Your task to perform on an android device: empty trash in the gmail app Image 0: 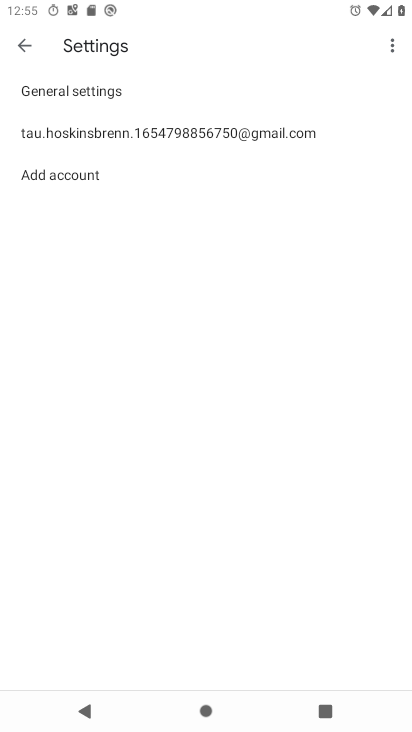
Step 0: press home button
Your task to perform on an android device: empty trash in the gmail app Image 1: 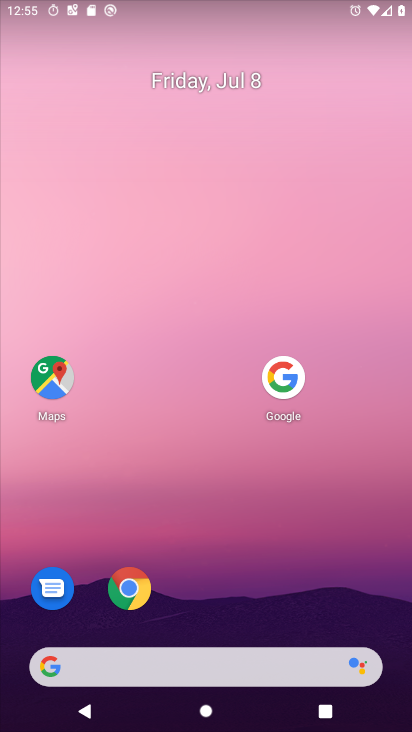
Step 1: drag from (143, 660) to (293, 143)
Your task to perform on an android device: empty trash in the gmail app Image 2: 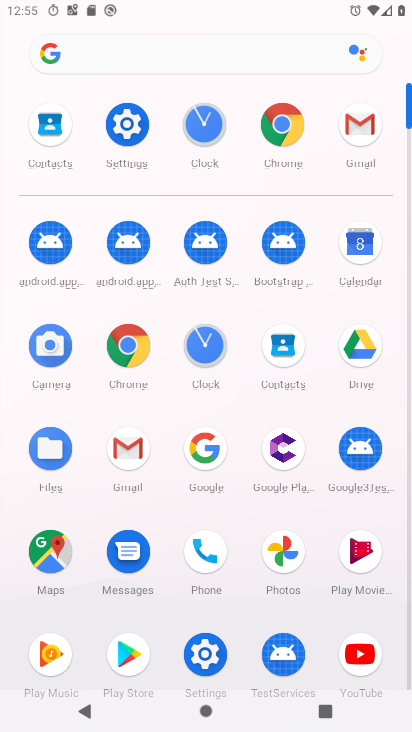
Step 2: click (361, 122)
Your task to perform on an android device: empty trash in the gmail app Image 3: 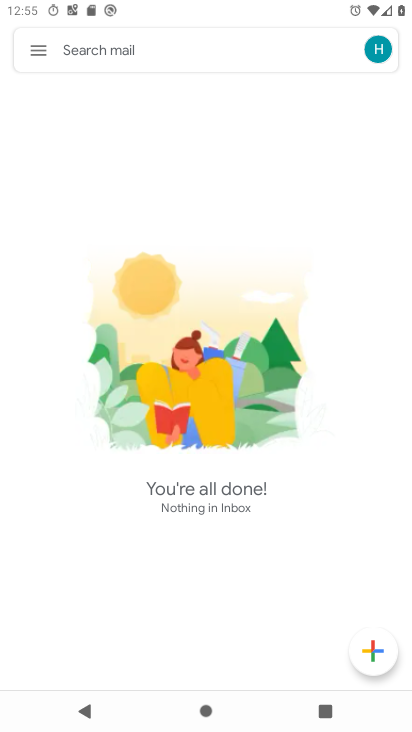
Step 3: click (37, 48)
Your task to perform on an android device: empty trash in the gmail app Image 4: 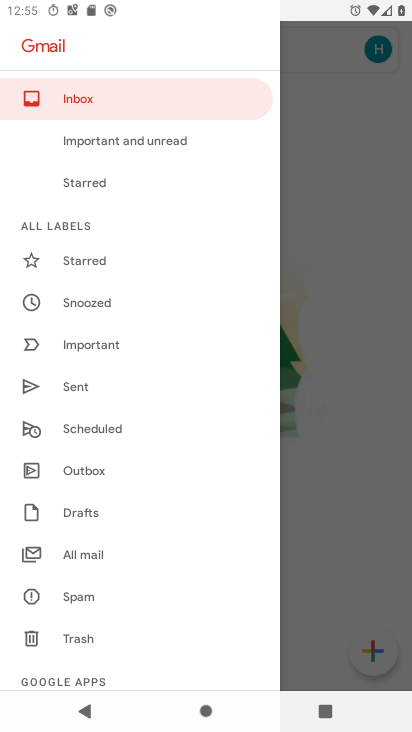
Step 4: click (98, 639)
Your task to perform on an android device: empty trash in the gmail app Image 5: 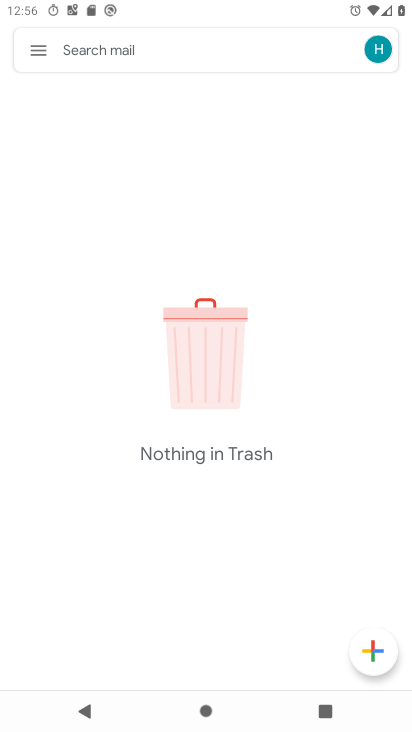
Step 5: task complete